Your task to perform on an android device: What is the news today? Image 0: 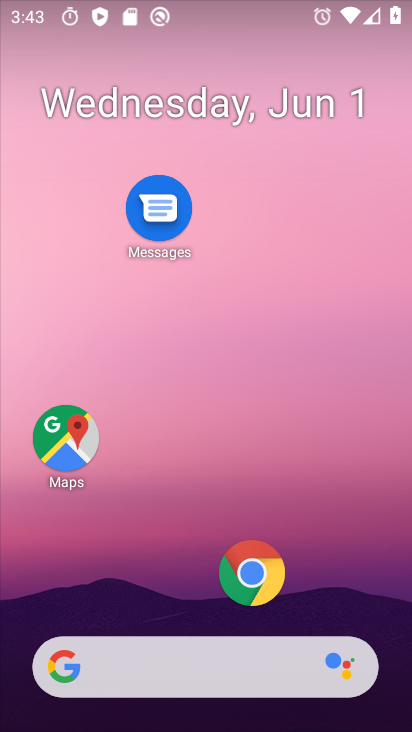
Step 0: drag from (210, 620) to (257, 181)
Your task to perform on an android device: What is the news today? Image 1: 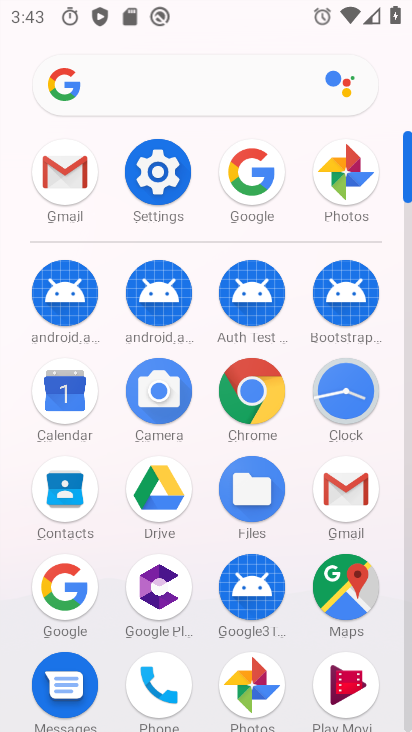
Step 1: click (257, 181)
Your task to perform on an android device: What is the news today? Image 2: 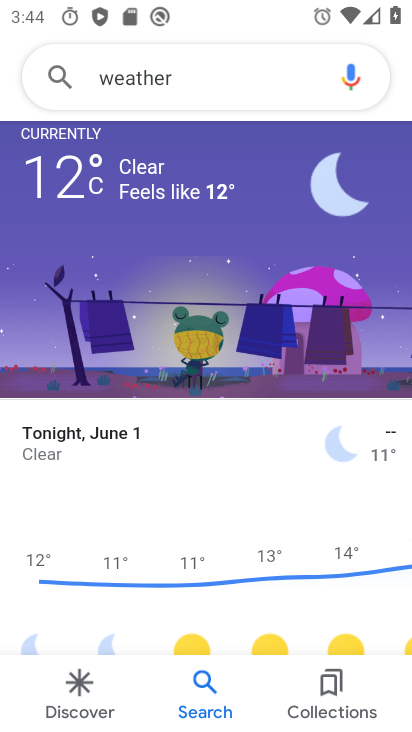
Step 2: click (216, 80)
Your task to perform on an android device: What is the news today? Image 3: 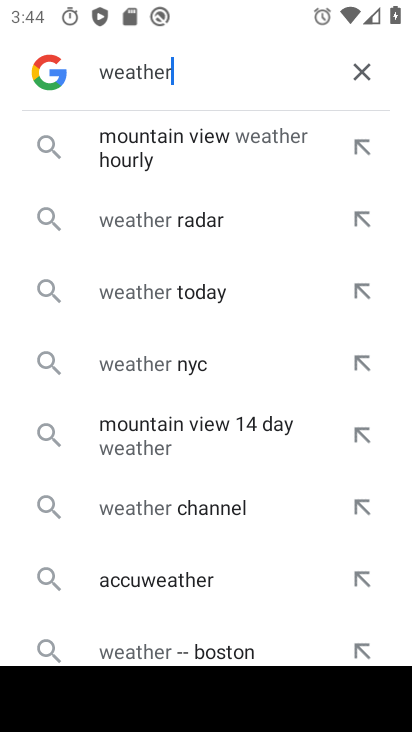
Step 3: click (355, 78)
Your task to perform on an android device: What is the news today? Image 4: 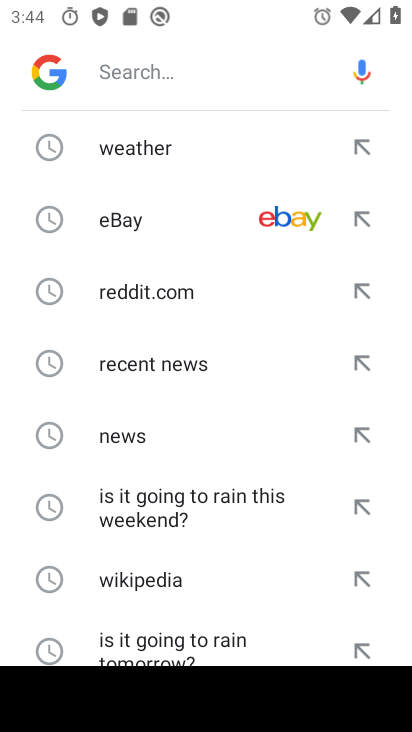
Step 4: click (167, 425)
Your task to perform on an android device: What is the news today? Image 5: 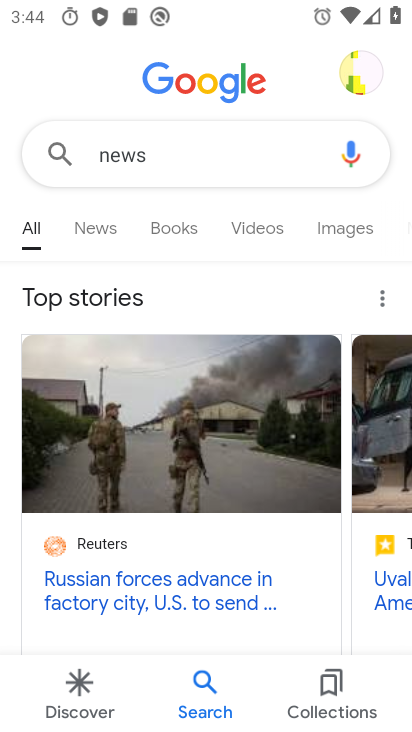
Step 5: click (110, 224)
Your task to perform on an android device: What is the news today? Image 6: 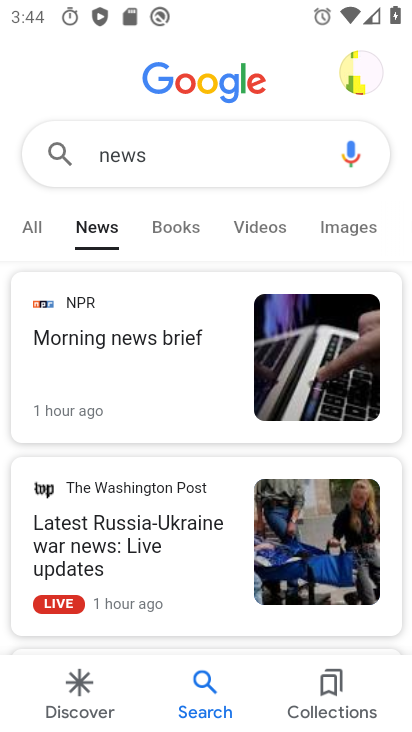
Step 6: task complete